Your task to perform on an android device: toggle translation in the chrome app Image 0: 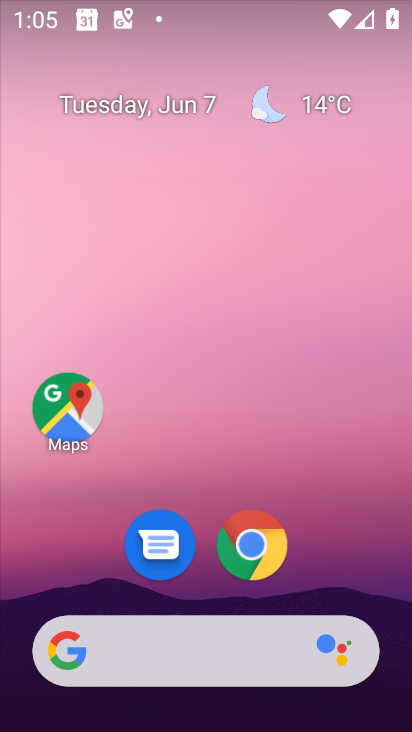
Step 0: drag from (374, 524) to (372, 137)
Your task to perform on an android device: toggle translation in the chrome app Image 1: 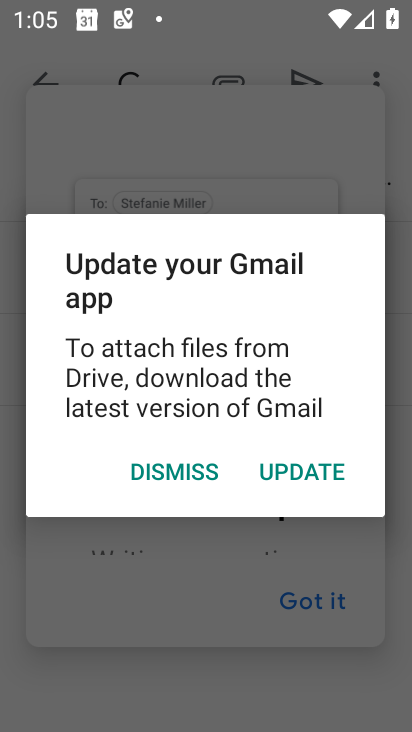
Step 1: click (191, 465)
Your task to perform on an android device: toggle translation in the chrome app Image 2: 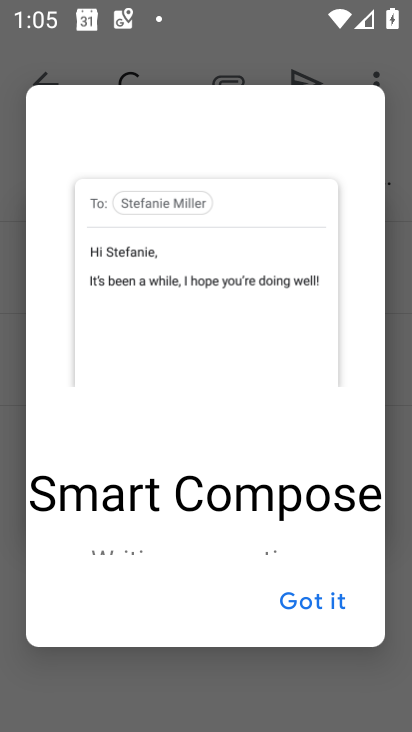
Step 2: press home button
Your task to perform on an android device: toggle translation in the chrome app Image 3: 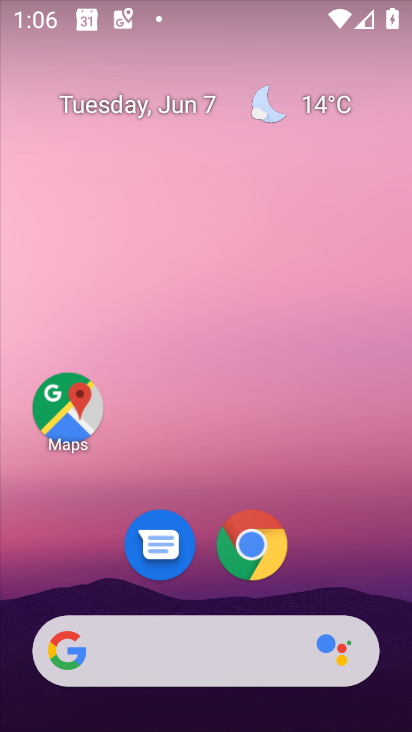
Step 3: drag from (334, 532) to (326, 139)
Your task to perform on an android device: toggle translation in the chrome app Image 4: 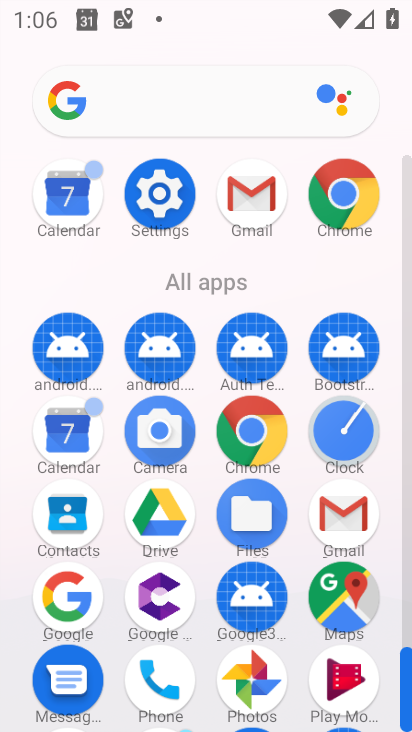
Step 4: click (240, 464)
Your task to perform on an android device: toggle translation in the chrome app Image 5: 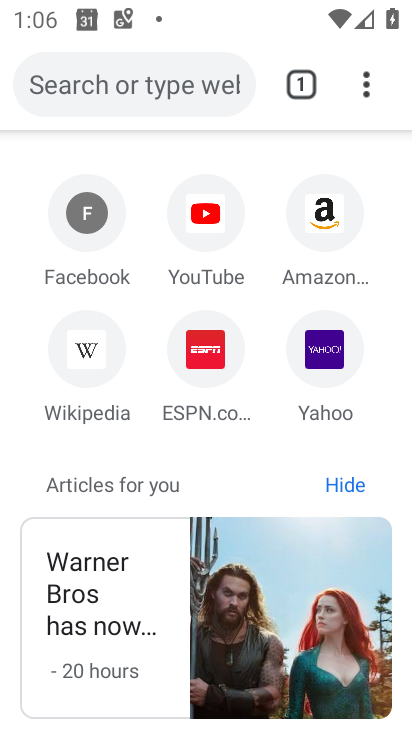
Step 5: drag from (383, 89) to (148, 592)
Your task to perform on an android device: toggle translation in the chrome app Image 6: 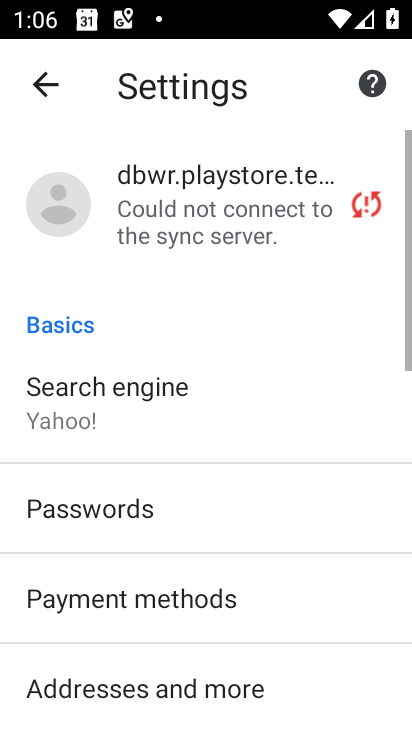
Step 6: drag from (169, 632) to (309, 240)
Your task to perform on an android device: toggle translation in the chrome app Image 7: 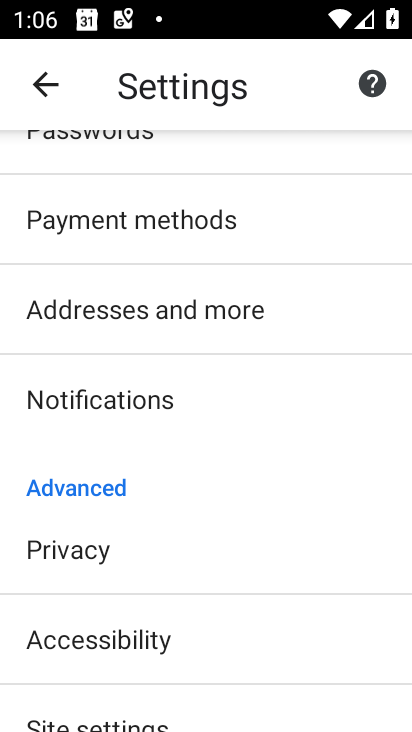
Step 7: drag from (299, 535) to (357, 268)
Your task to perform on an android device: toggle translation in the chrome app Image 8: 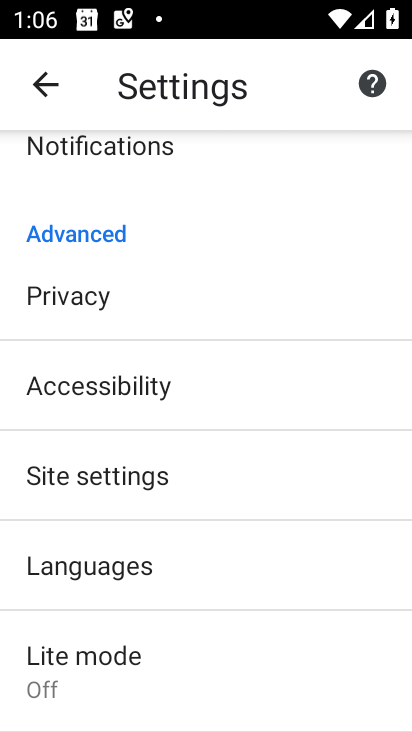
Step 8: click (187, 571)
Your task to perform on an android device: toggle translation in the chrome app Image 9: 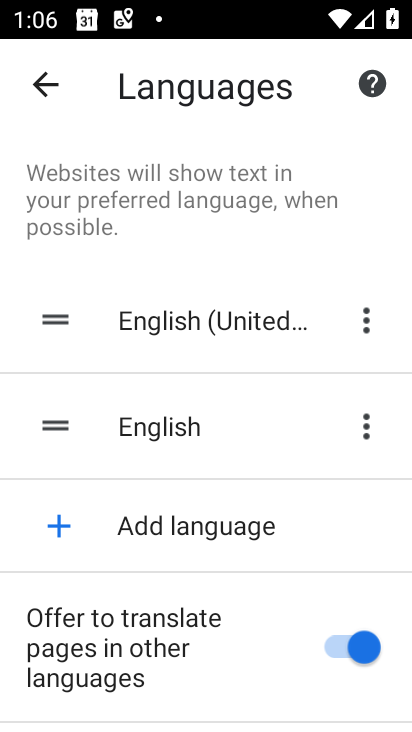
Step 9: click (332, 655)
Your task to perform on an android device: toggle translation in the chrome app Image 10: 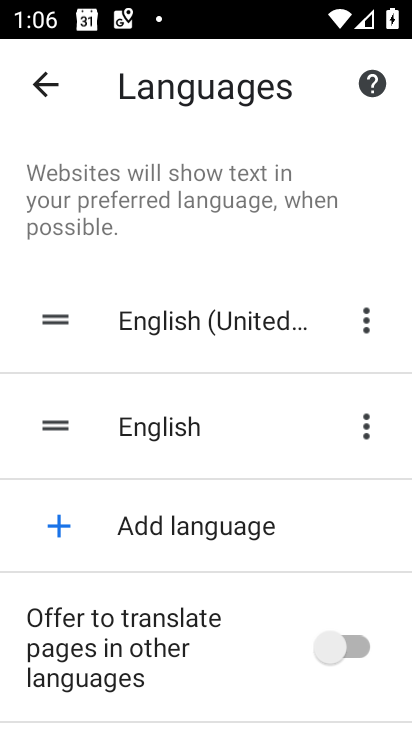
Step 10: task complete